Your task to perform on an android device: toggle improve location accuracy Image 0: 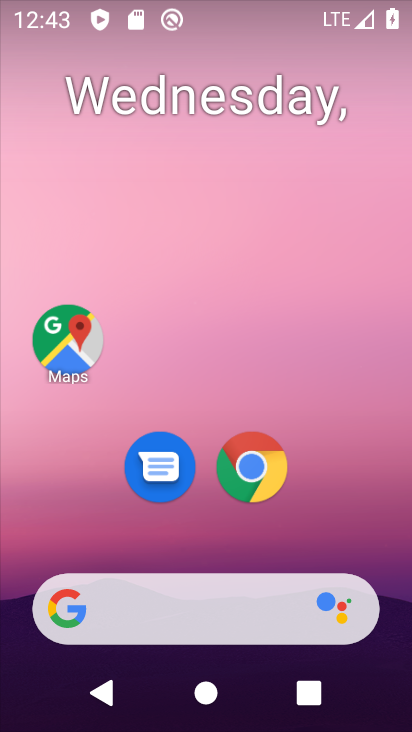
Step 0: drag from (368, 528) to (363, 139)
Your task to perform on an android device: toggle improve location accuracy Image 1: 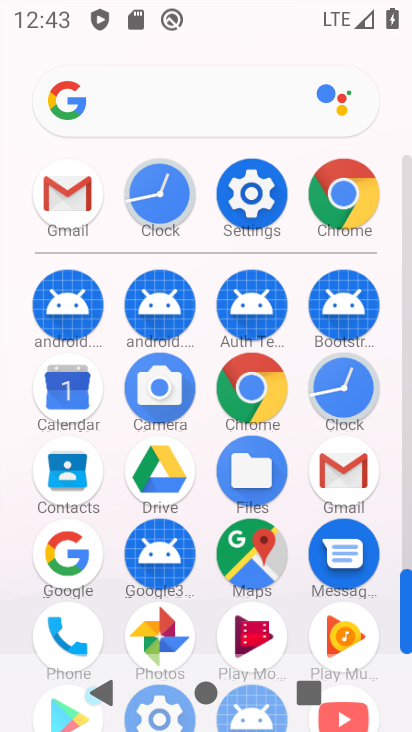
Step 1: click (266, 210)
Your task to perform on an android device: toggle improve location accuracy Image 2: 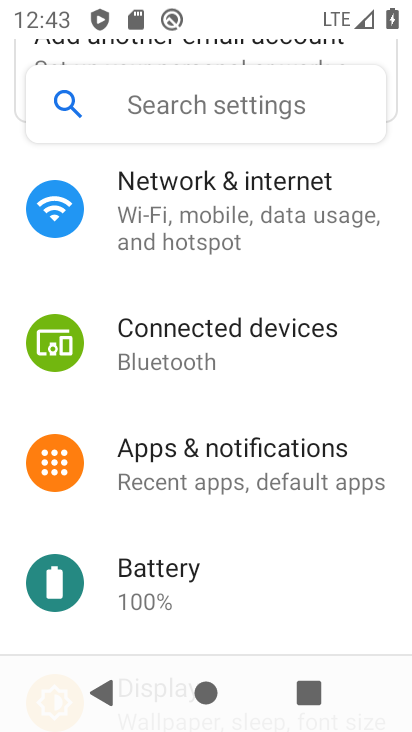
Step 2: drag from (338, 538) to (344, 420)
Your task to perform on an android device: toggle improve location accuracy Image 3: 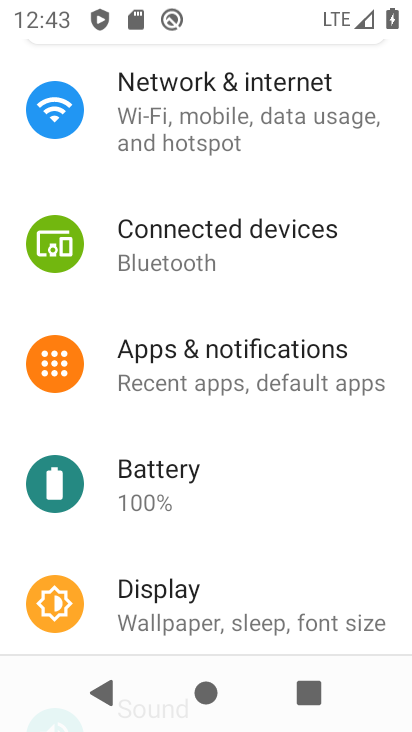
Step 3: drag from (343, 537) to (345, 414)
Your task to perform on an android device: toggle improve location accuracy Image 4: 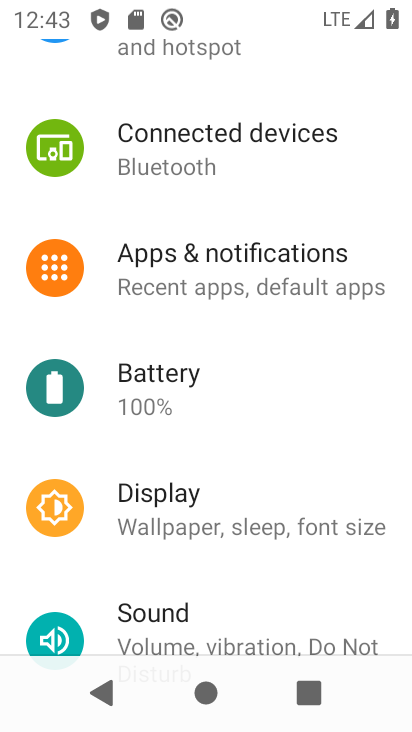
Step 4: drag from (359, 576) to (356, 424)
Your task to perform on an android device: toggle improve location accuracy Image 5: 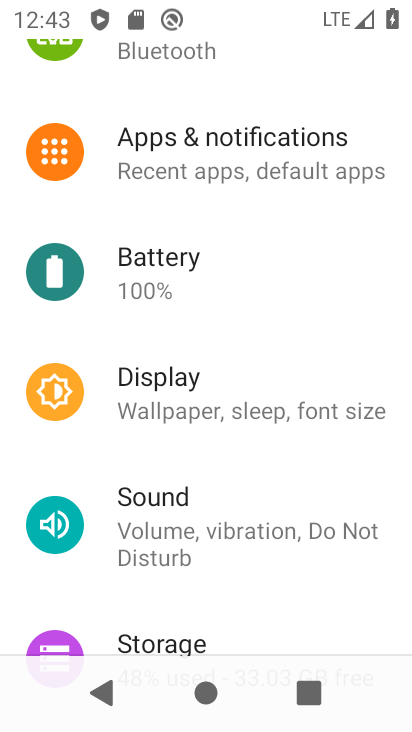
Step 5: drag from (371, 604) to (367, 441)
Your task to perform on an android device: toggle improve location accuracy Image 6: 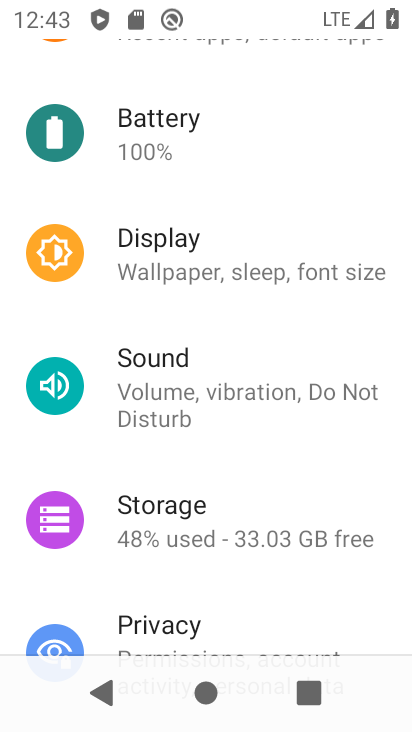
Step 6: drag from (351, 581) to (355, 417)
Your task to perform on an android device: toggle improve location accuracy Image 7: 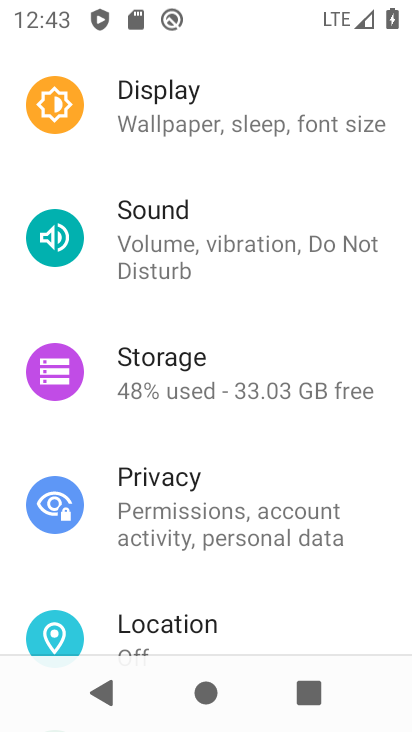
Step 7: drag from (287, 449) to (268, 265)
Your task to perform on an android device: toggle improve location accuracy Image 8: 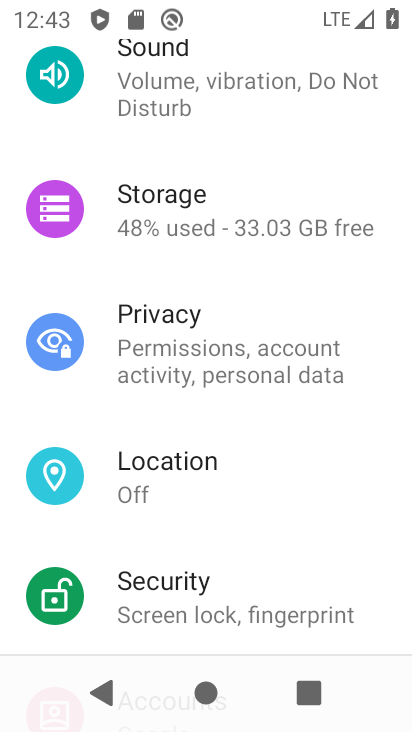
Step 8: drag from (300, 461) to (282, 269)
Your task to perform on an android device: toggle improve location accuracy Image 9: 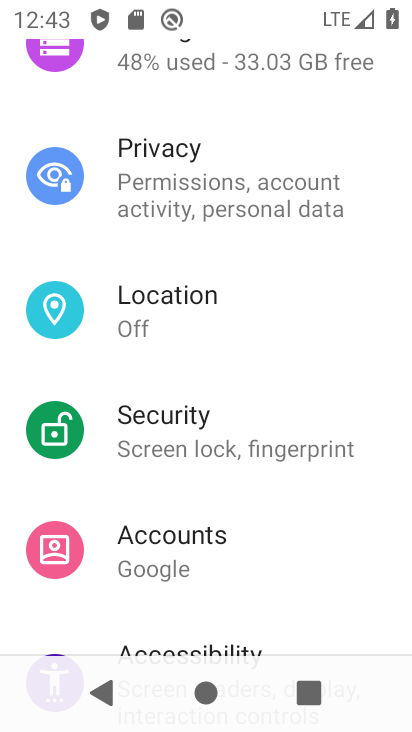
Step 9: click (195, 317)
Your task to perform on an android device: toggle improve location accuracy Image 10: 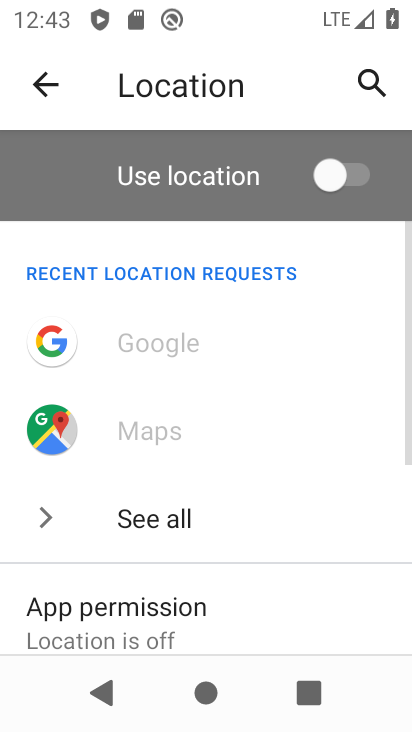
Step 10: drag from (308, 476) to (300, 271)
Your task to perform on an android device: toggle improve location accuracy Image 11: 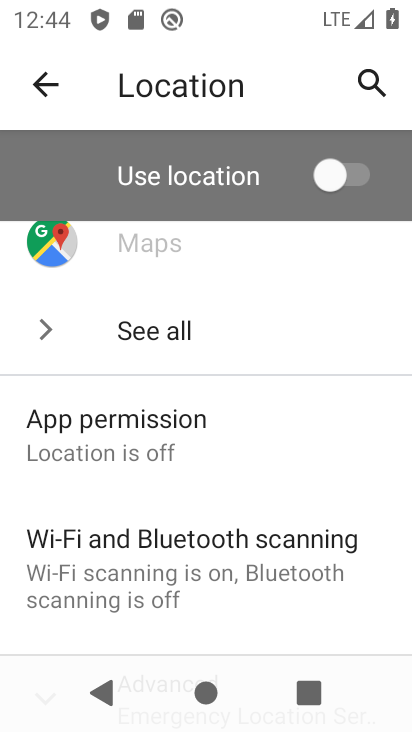
Step 11: drag from (284, 462) to (304, 308)
Your task to perform on an android device: toggle improve location accuracy Image 12: 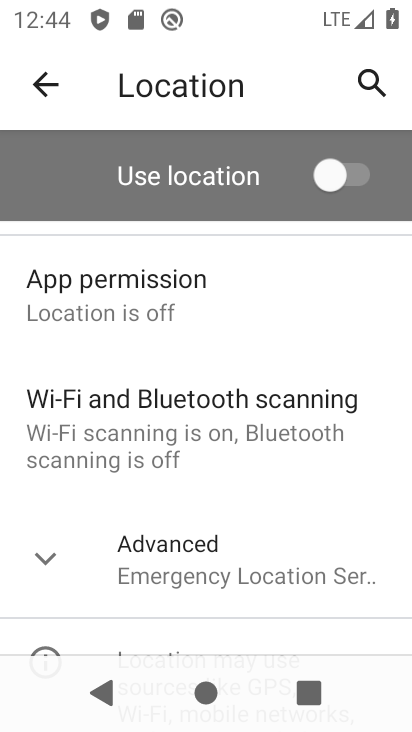
Step 12: click (260, 572)
Your task to perform on an android device: toggle improve location accuracy Image 13: 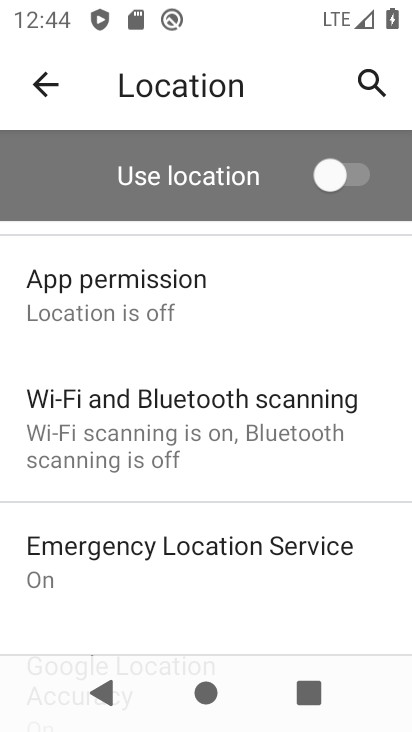
Step 13: drag from (290, 511) to (298, 355)
Your task to perform on an android device: toggle improve location accuracy Image 14: 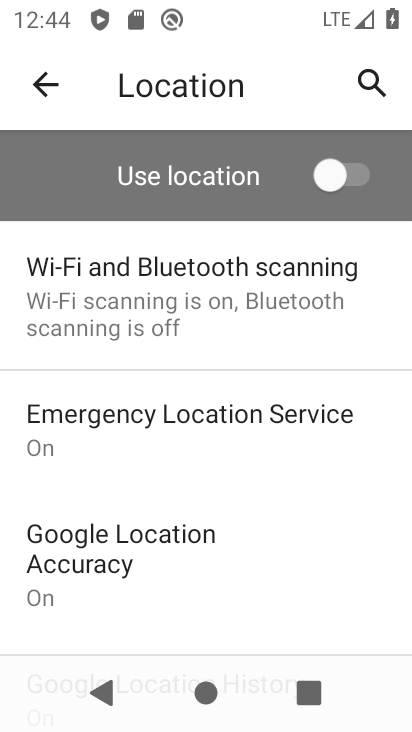
Step 14: drag from (307, 530) to (290, 325)
Your task to perform on an android device: toggle improve location accuracy Image 15: 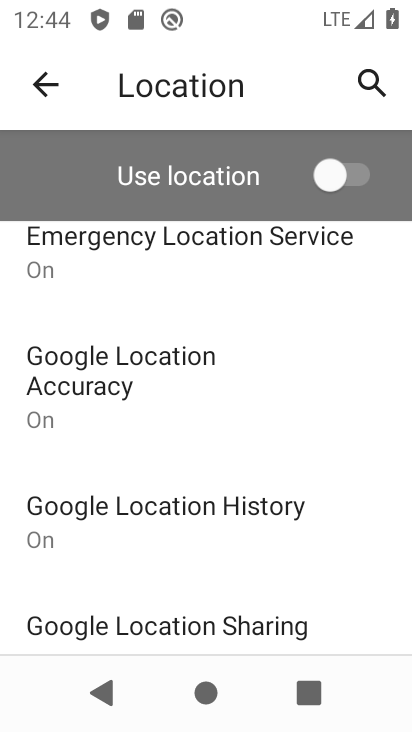
Step 15: click (193, 382)
Your task to perform on an android device: toggle improve location accuracy Image 16: 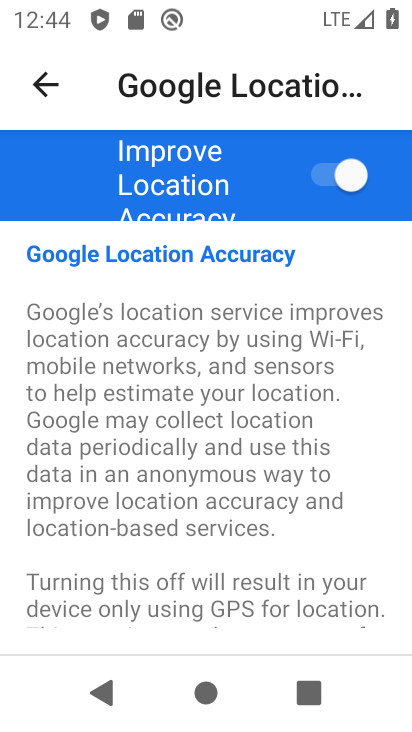
Step 16: task complete